Your task to perform on an android device: check android version Image 0: 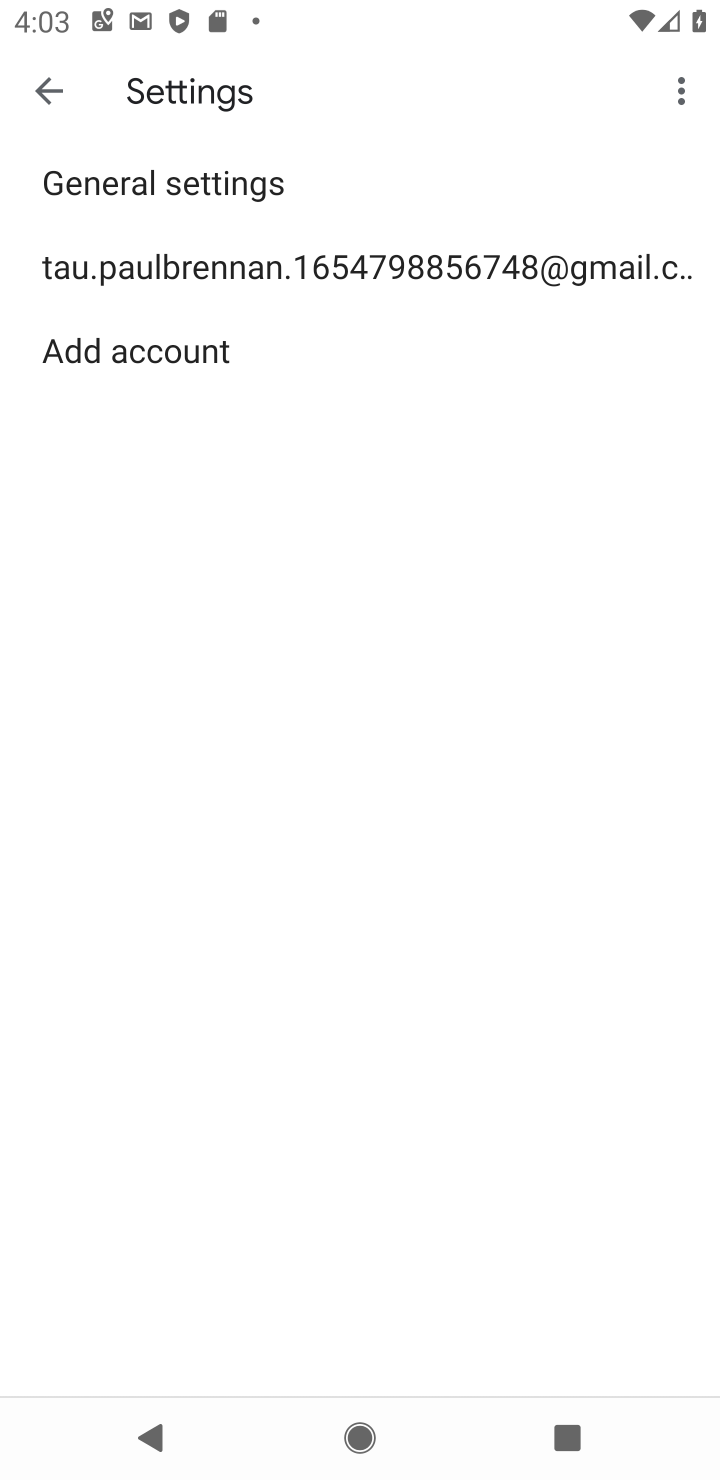
Step 0: press home button
Your task to perform on an android device: check android version Image 1: 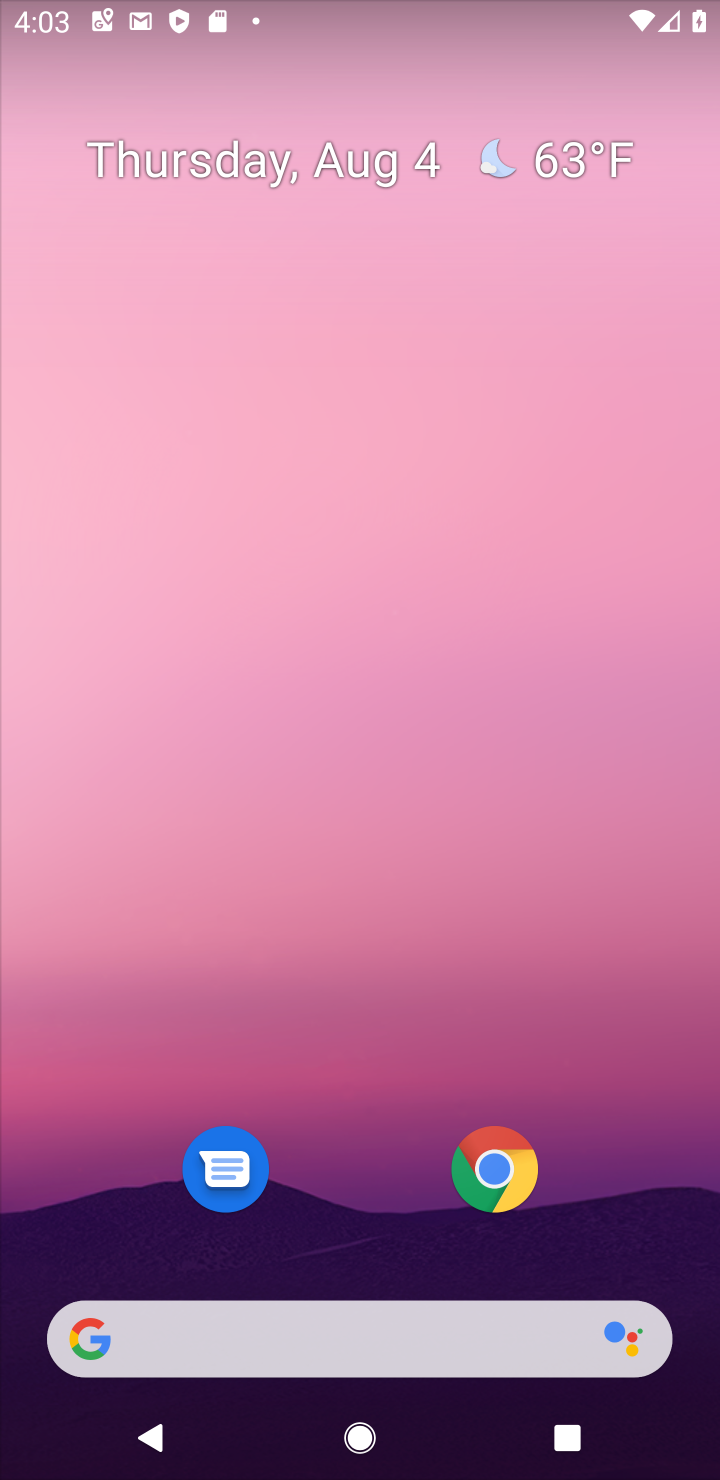
Step 1: drag from (313, 1182) to (176, 9)
Your task to perform on an android device: check android version Image 2: 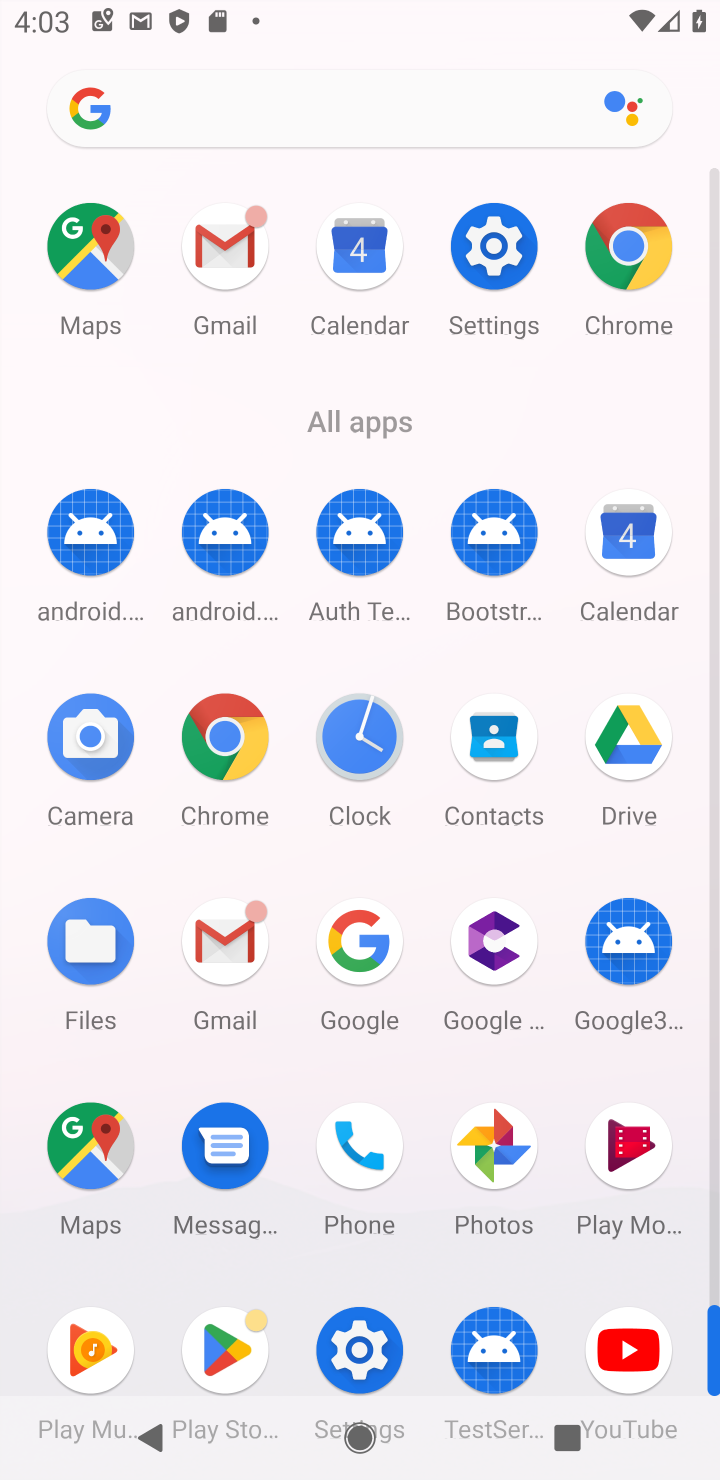
Step 2: click (507, 280)
Your task to perform on an android device: check android version Image 3: 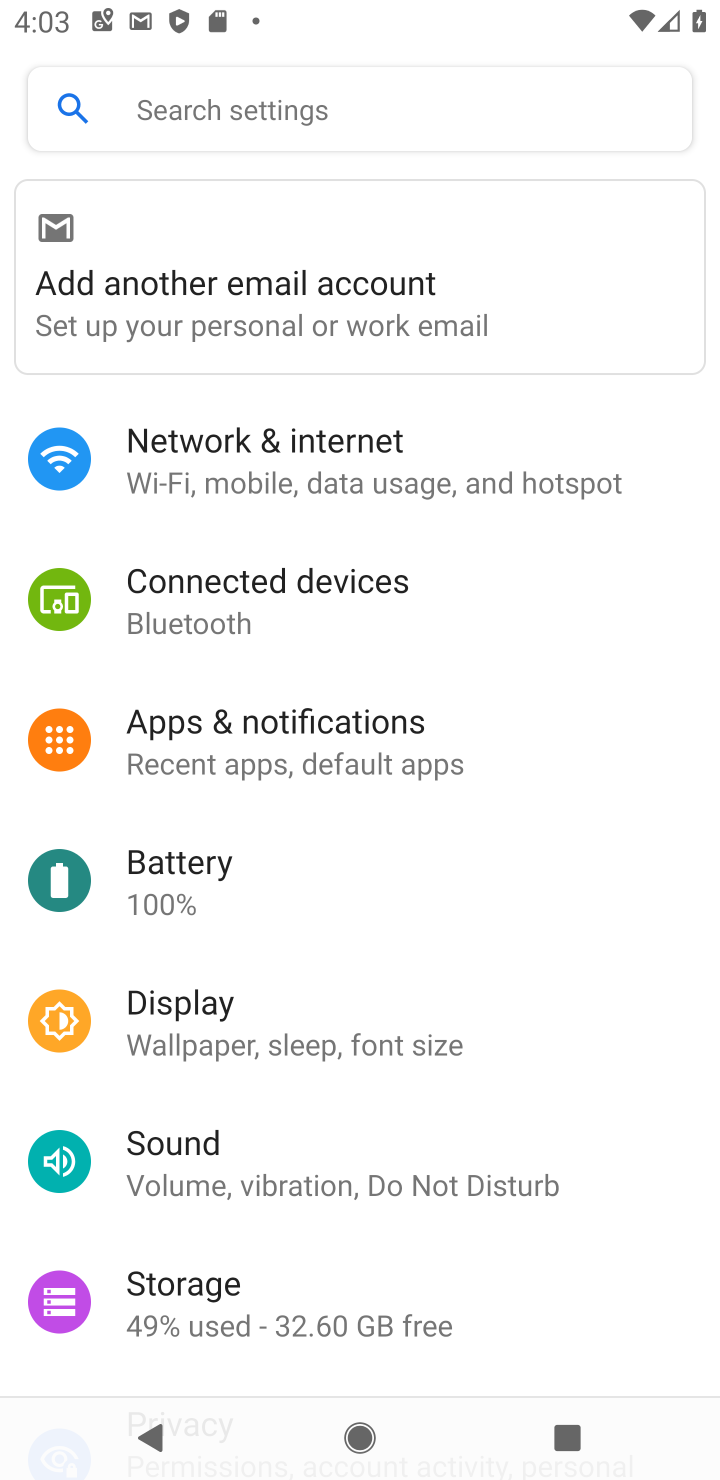
Step 3: drag from (329, 623) to (322, 533)
Your task to perform on an android device: check android version Image 4: 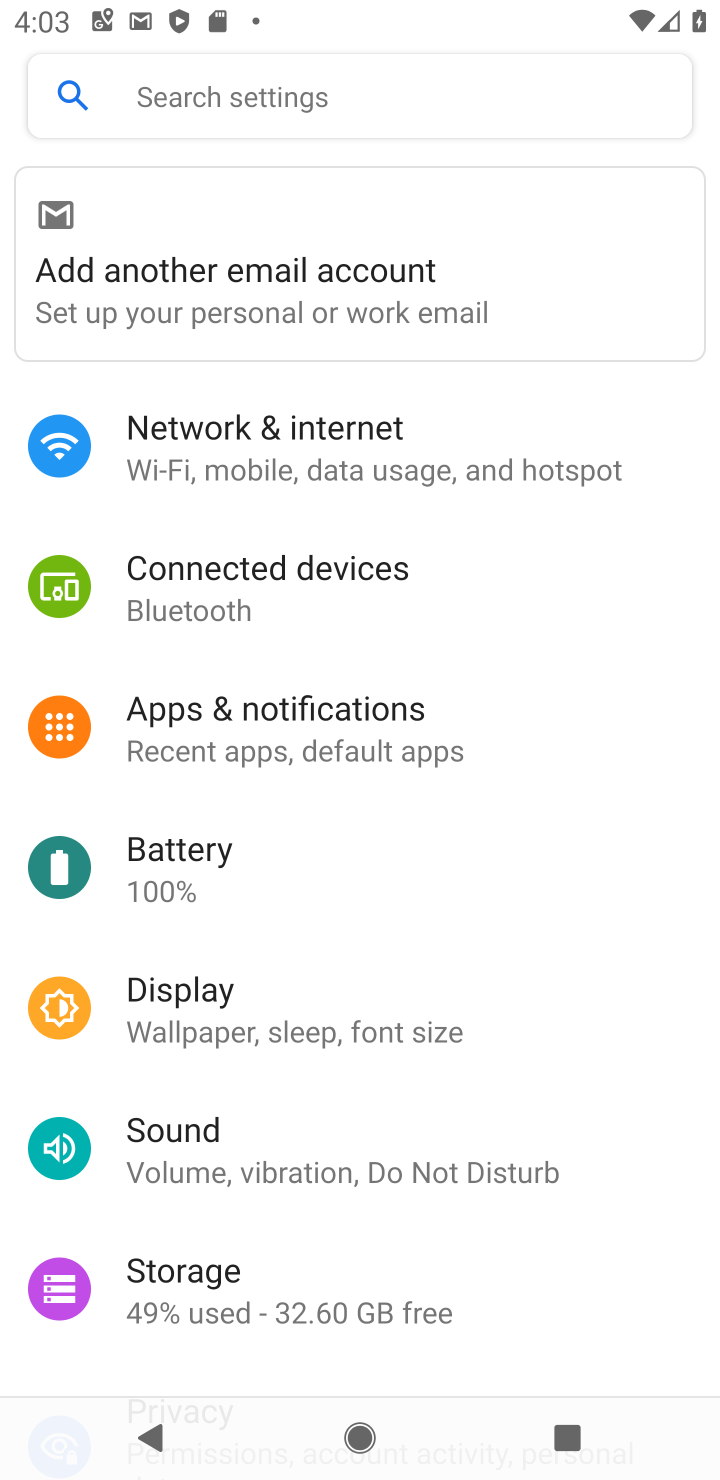
Step 4: drag from (302, 1110) to (369, 328)
Your task to perform on an android device: check android version Image 5: 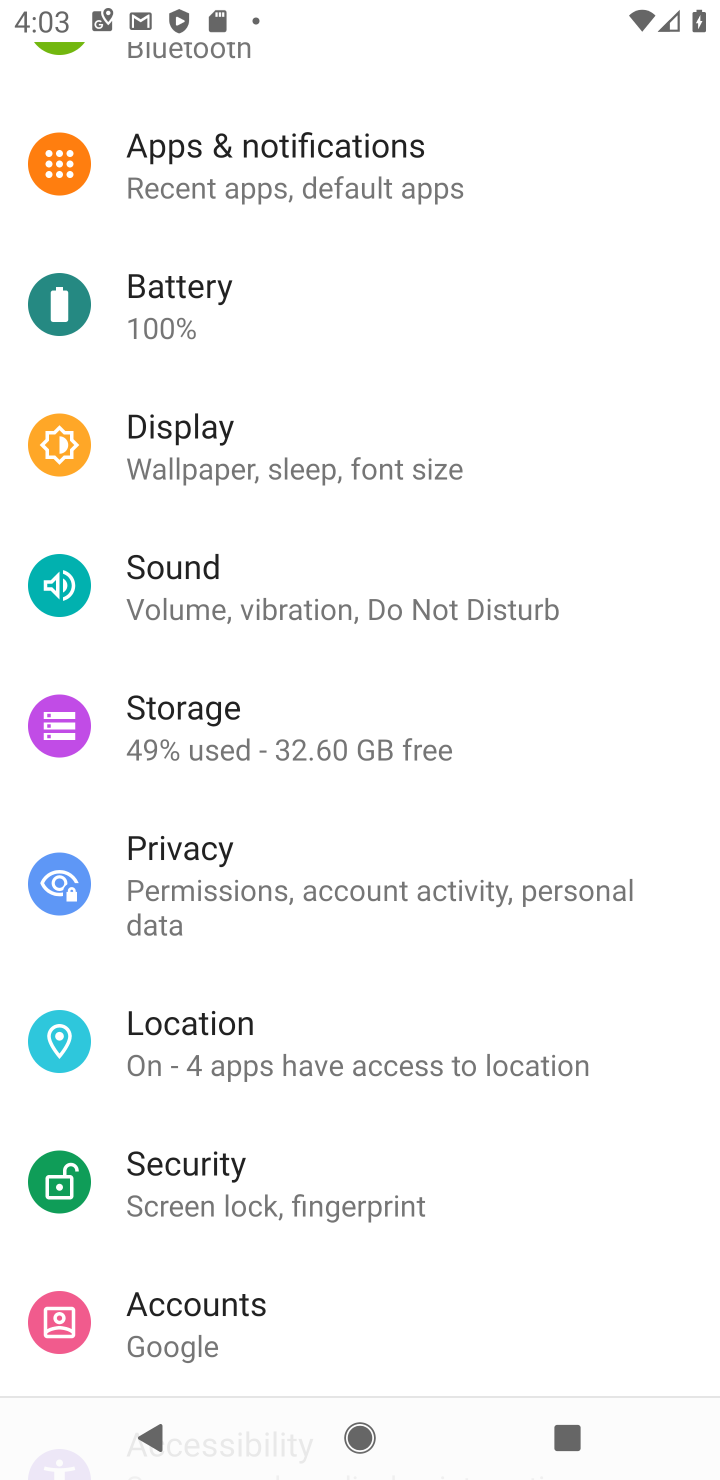
Step 5: drag from (312, 994) to (327, 696)
Your task to perform on an android device: check android version Image 6: 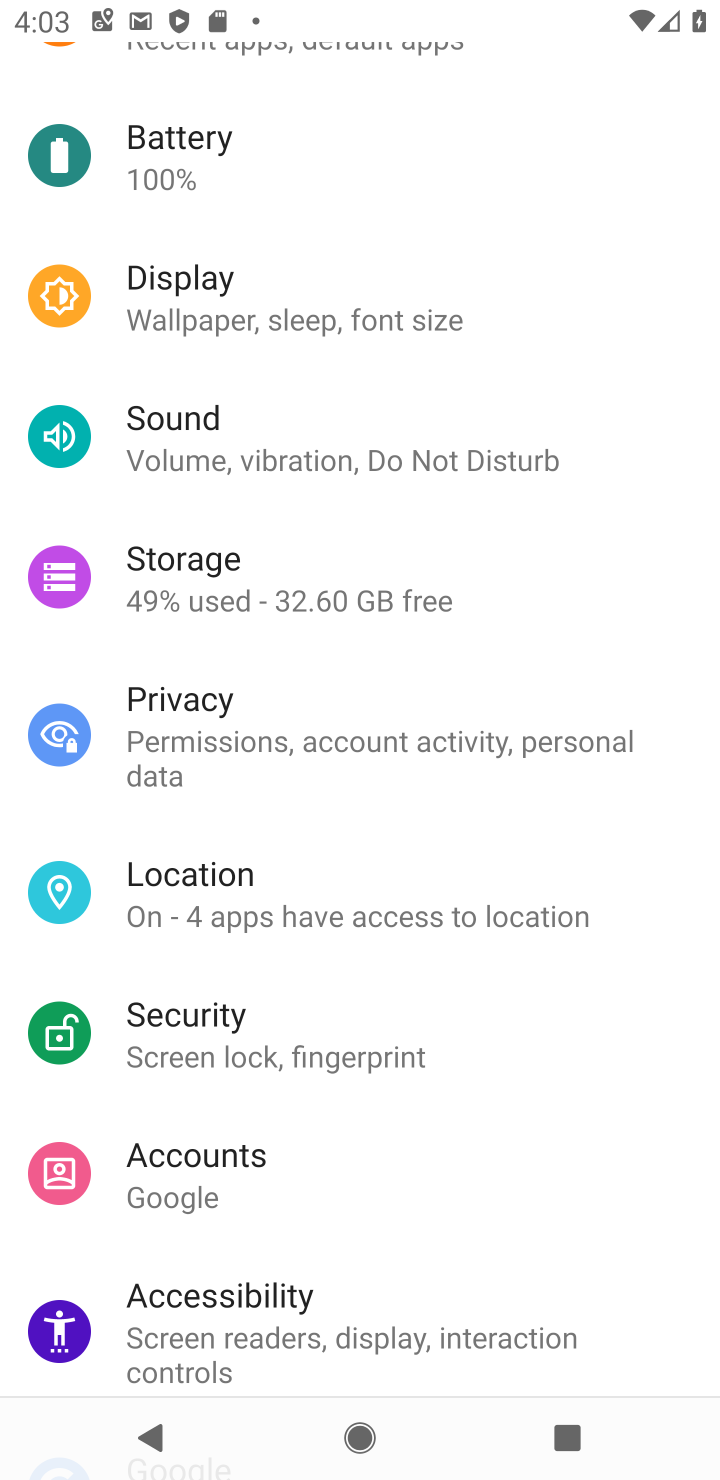
Step 6: drag from (296, 1277) to (305, 725)
Your task to perform on an android device: check android version Image 7: 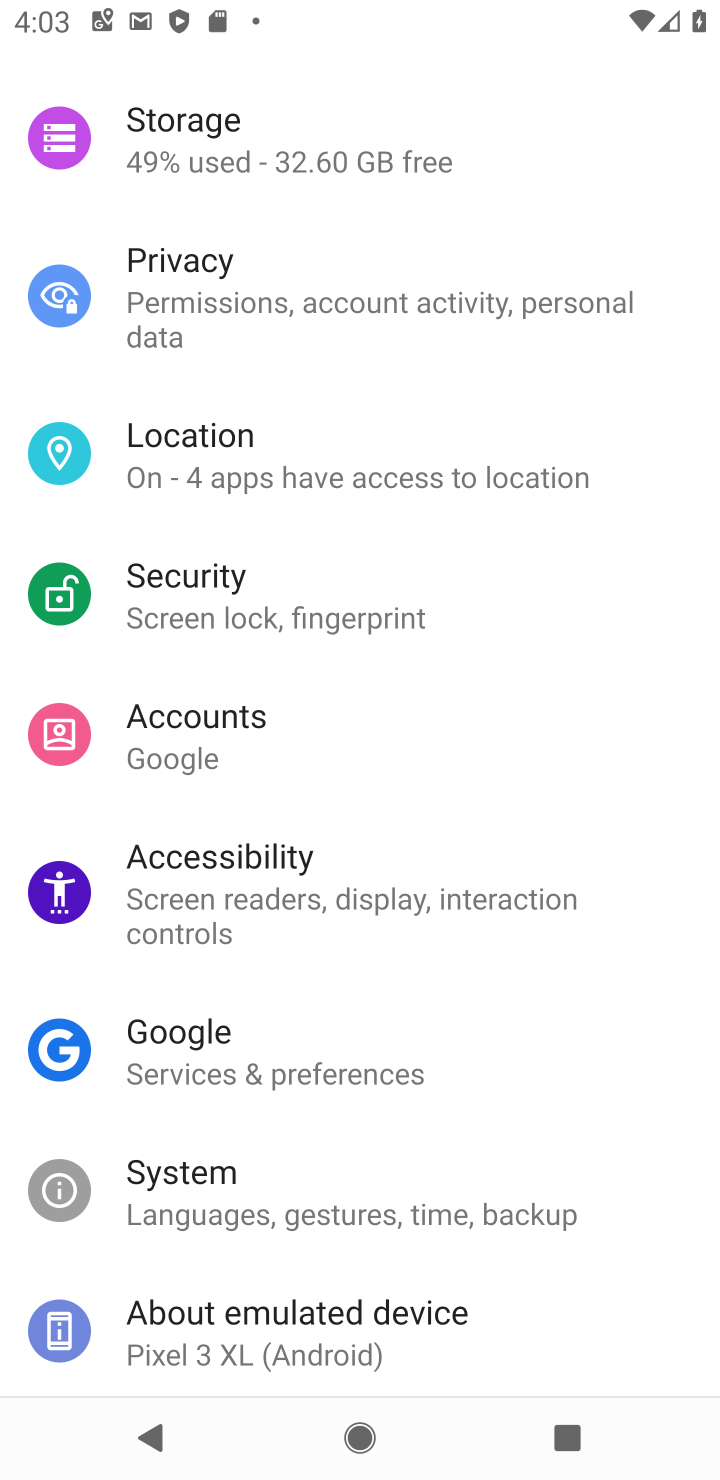
Step 7: click (259, 1337)
Your task to perform on an android device: check android version Image 8: 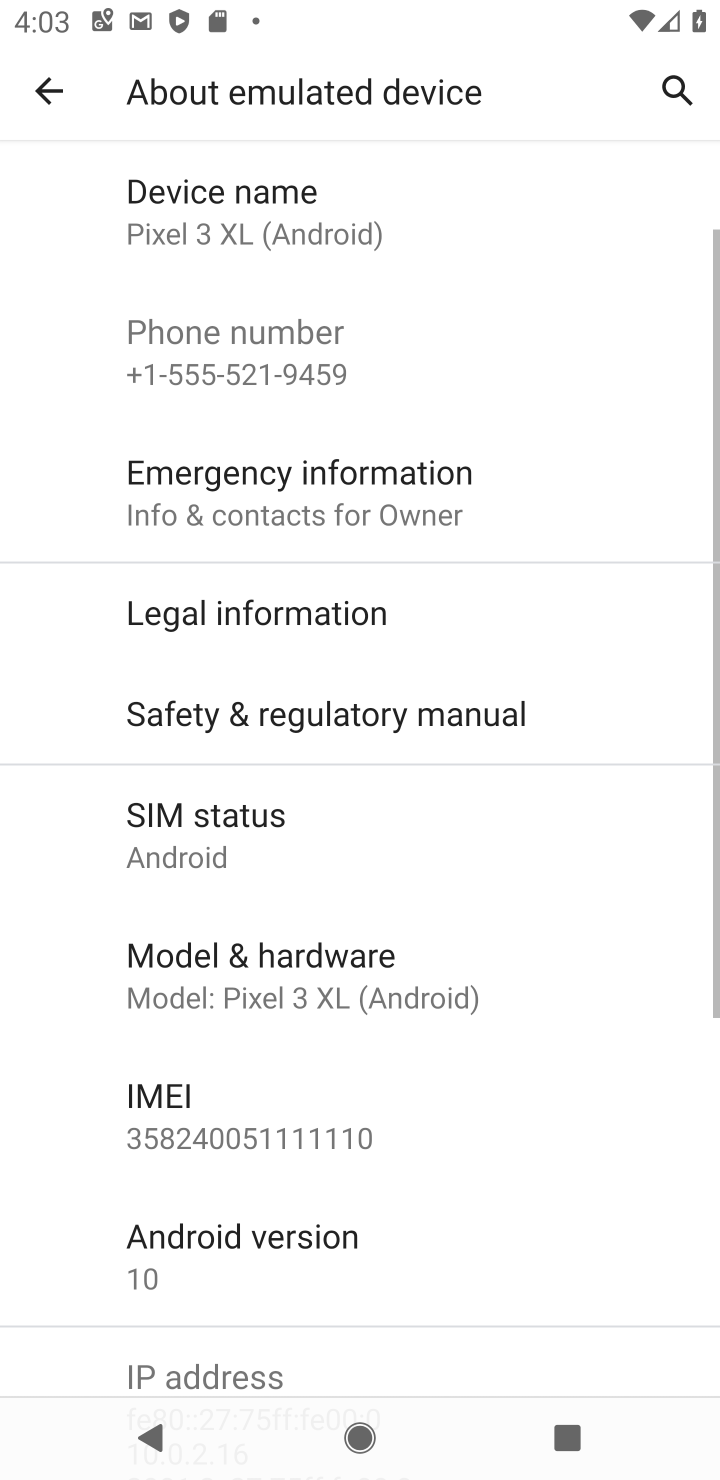
Step 8: click (250, 1257)
Your task to perform on an android device: check android version Image 9: 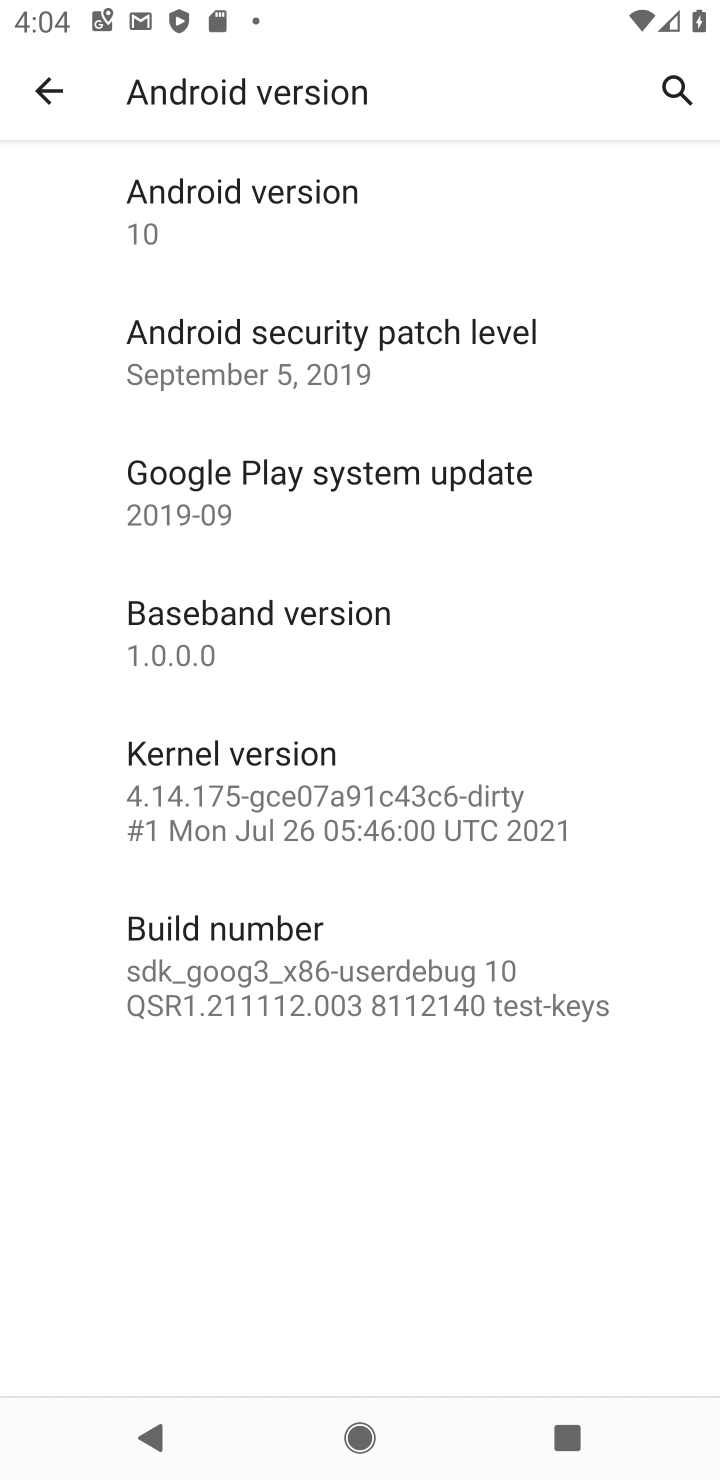
Step 9: task complete